Your task to perform on an android device: Toggle the flashlight Image 0: 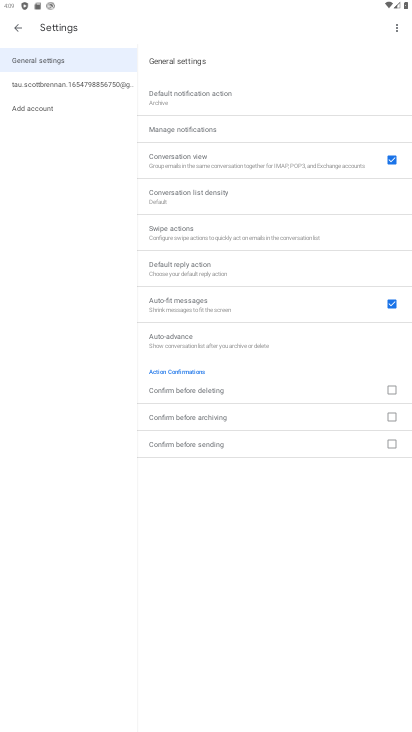
Step 0: press home button
Your task to perform on an android device: Toggle the flashlight Image 1: 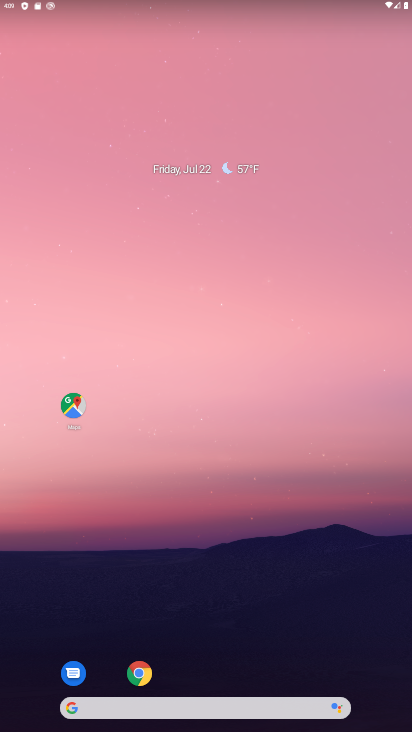
Step 1: drag from (263, 10) to (328, 443)
Your task to perform on an android device: Toggle the flashlight Image 2: 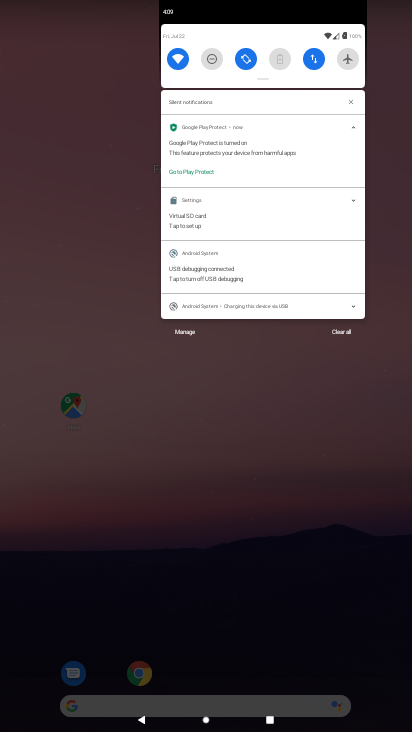
Step 2: drag from (259, 74) to (321, 452)
Your task to perform on an android device: Toggle the flashlight Image 3: 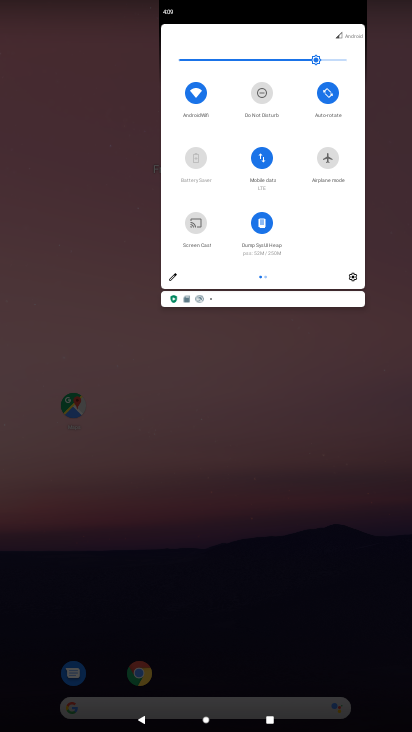
Step 3: click (173, 276)
Your task to perform on an android device: Toggle the flashlight Image 4: 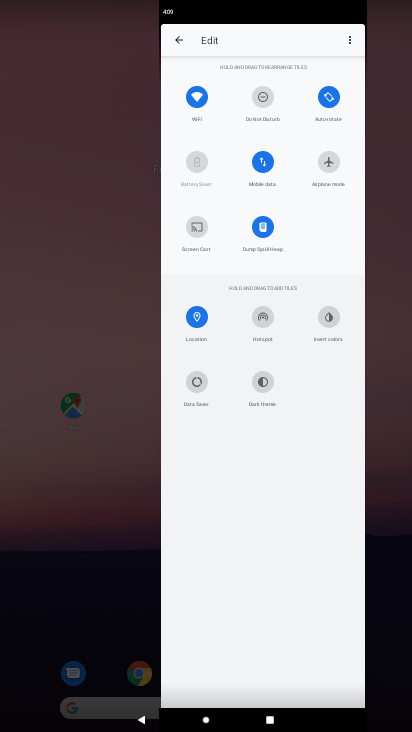
Step 4: task complete